Your task to perform on an android device: Open Yahoo.com Image 0: 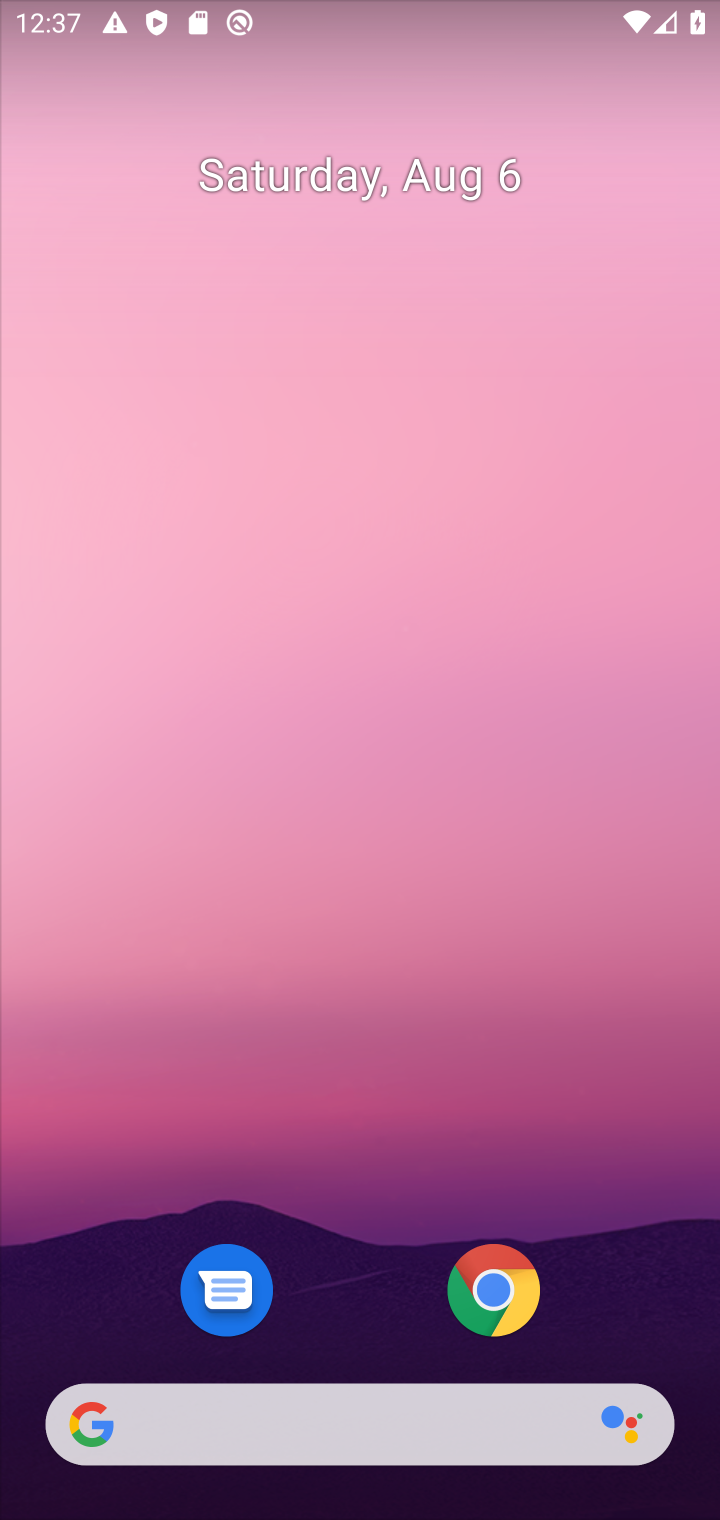
Step 0: click (506, 1281)
Your task to perform on an android device: Open Yahoo.com Image 1: 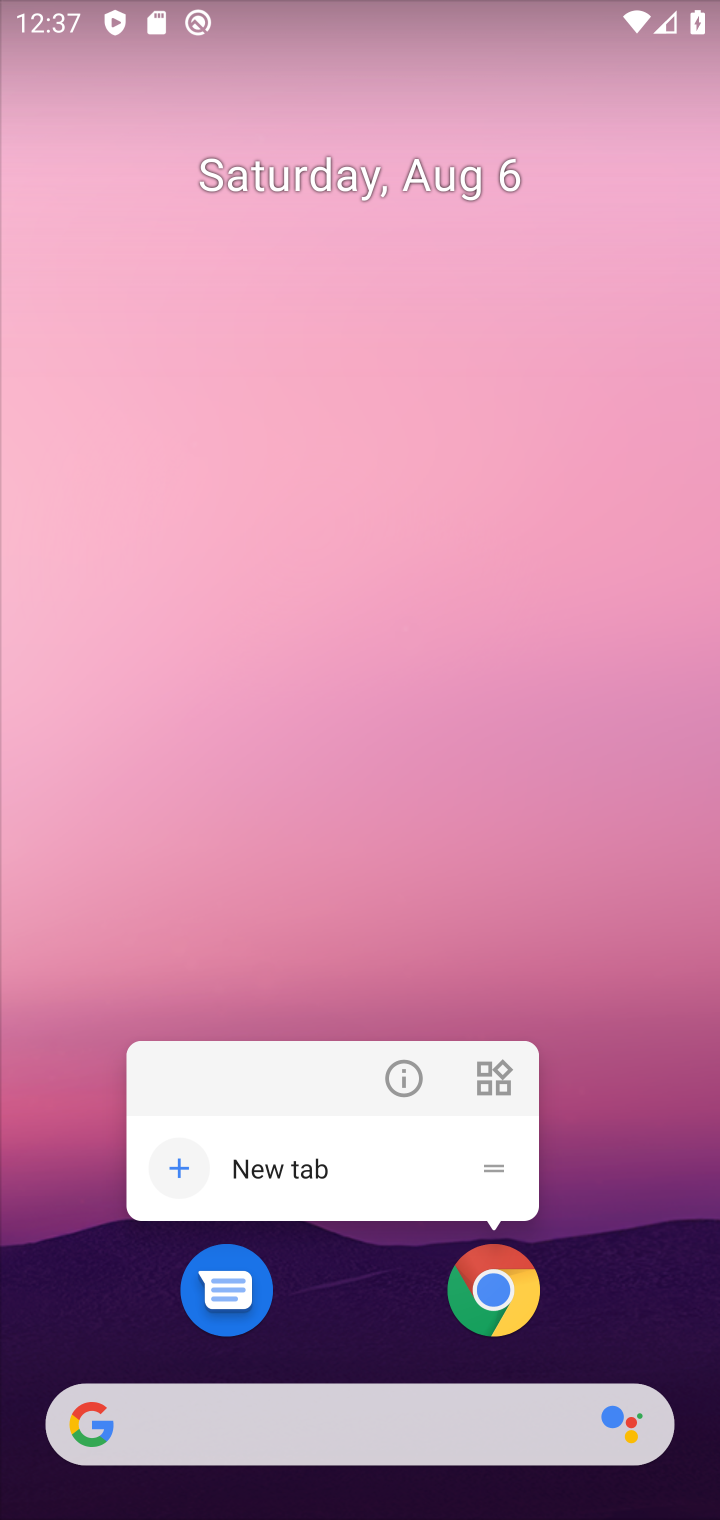
Step 1: click (510, 1287)
Your task to perform on an android device: Open Yahoo.com Image 2: 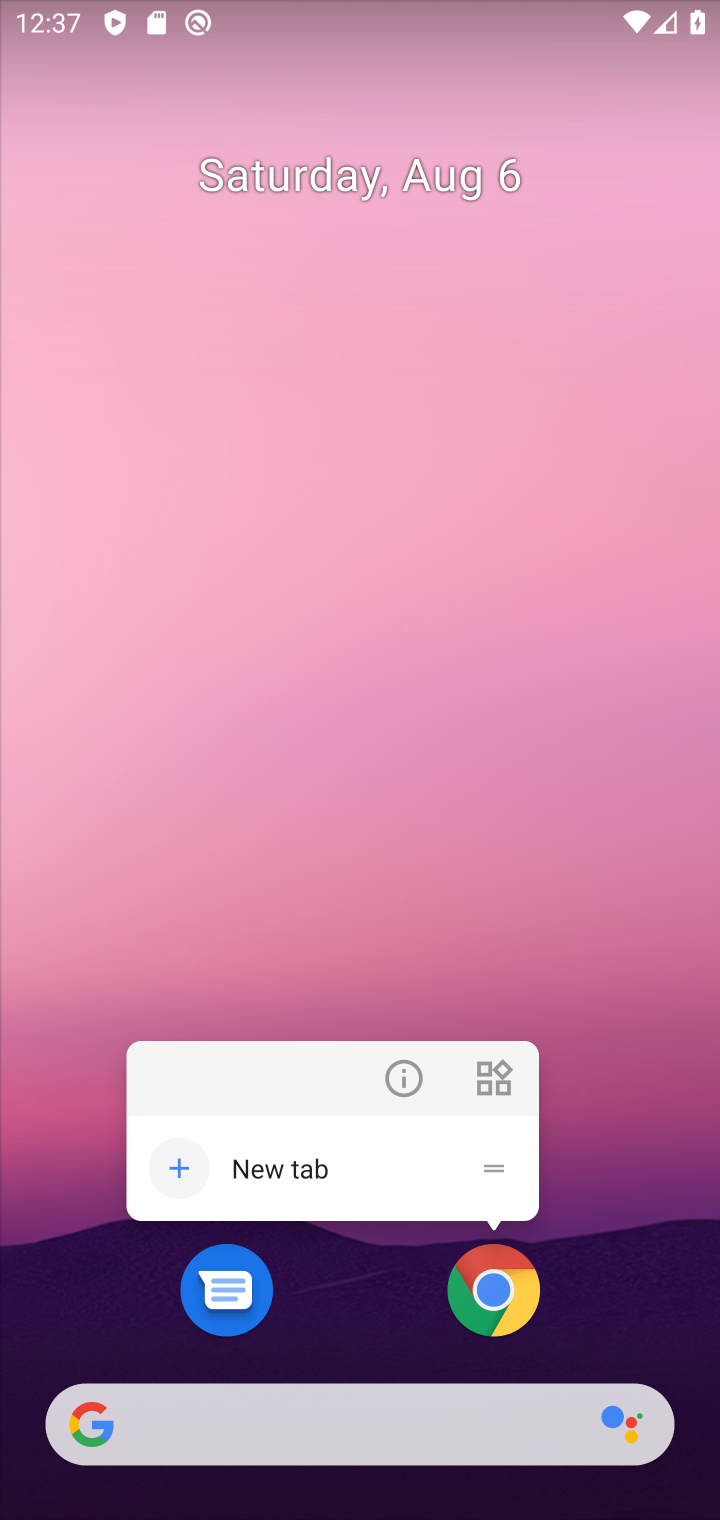
Step 2: click (502, 1262)
Your task to perform on an android device: Open Yahoo.com Image 3: 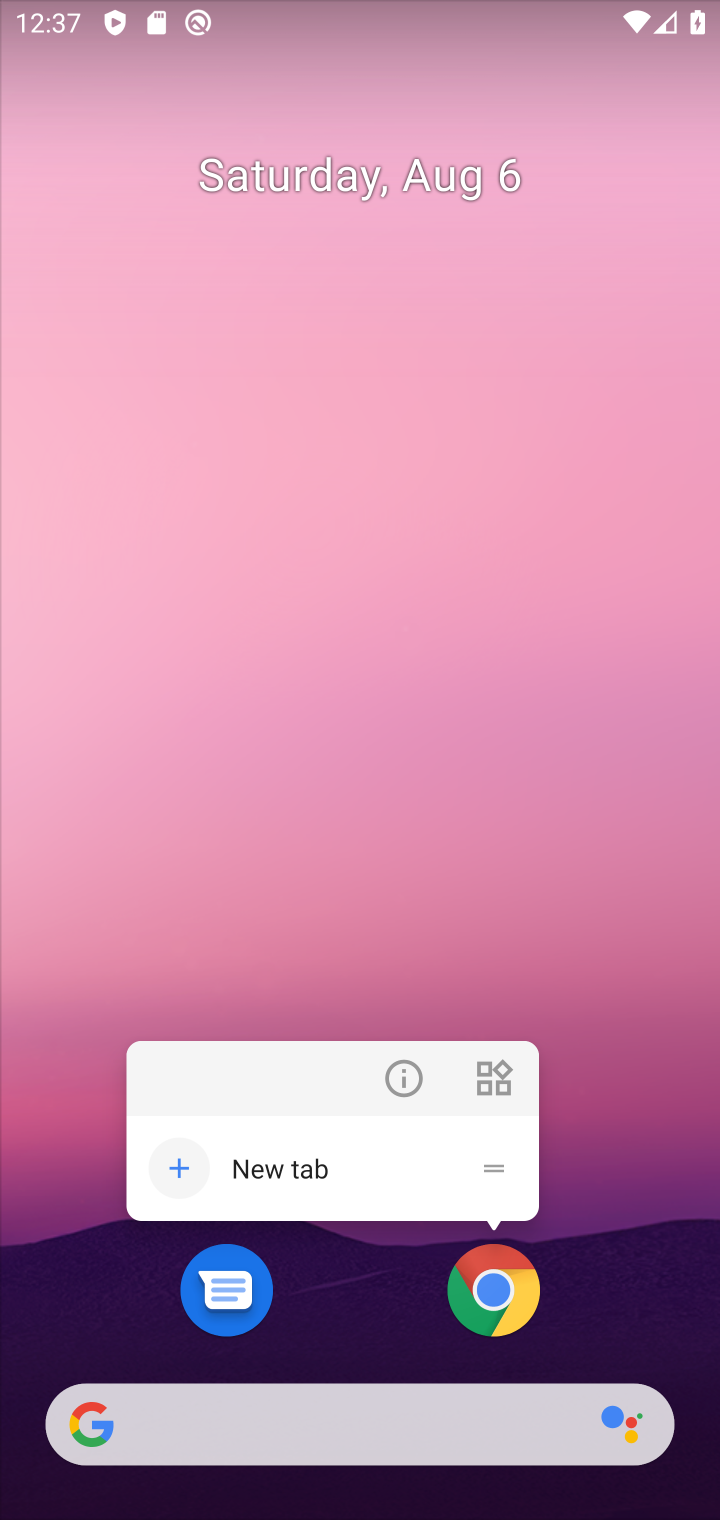
Step 3: click (519, 1281)
Your task to perform on an android device: Open Yahoo.com Image 4: 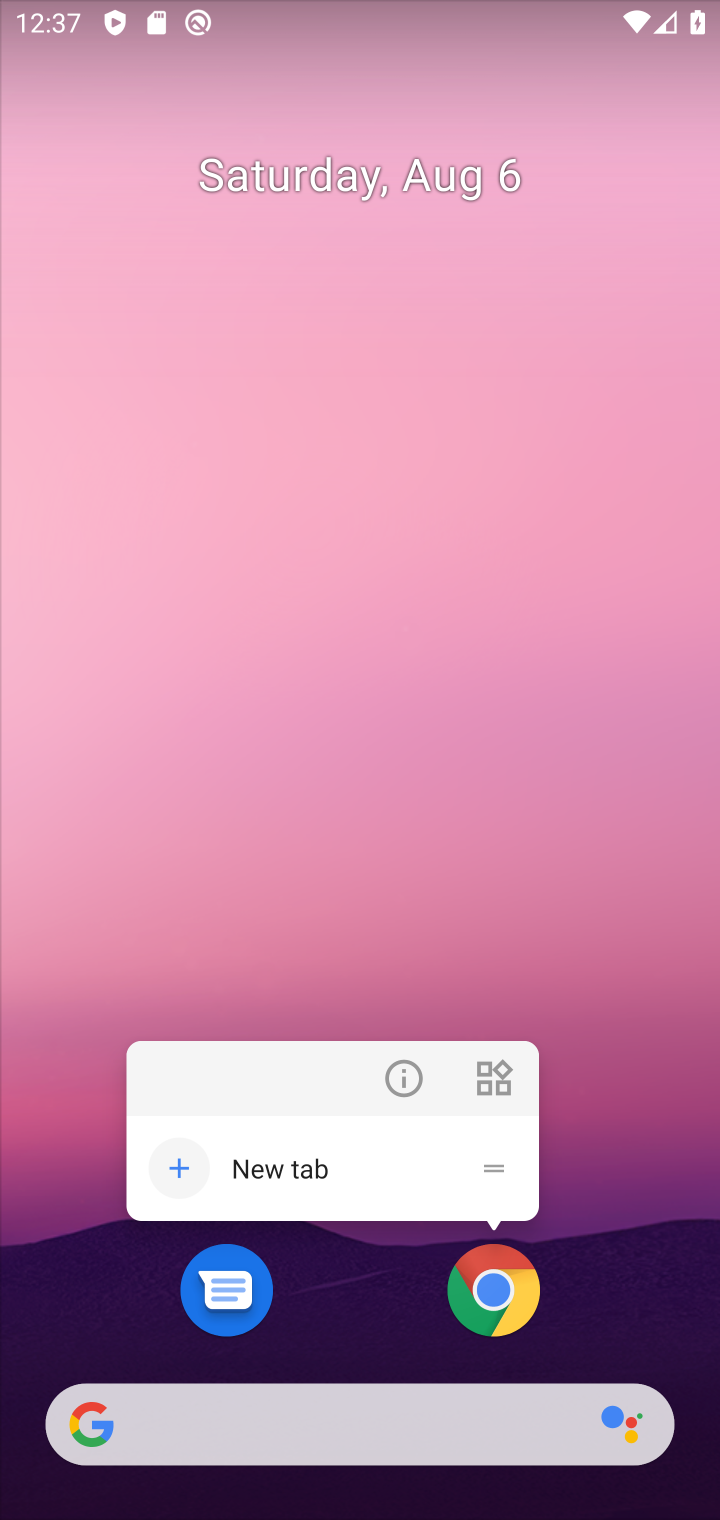
Step 4: click (512, 1306)
Your task to perform on an android device: Open Yahoo.com Image 5: 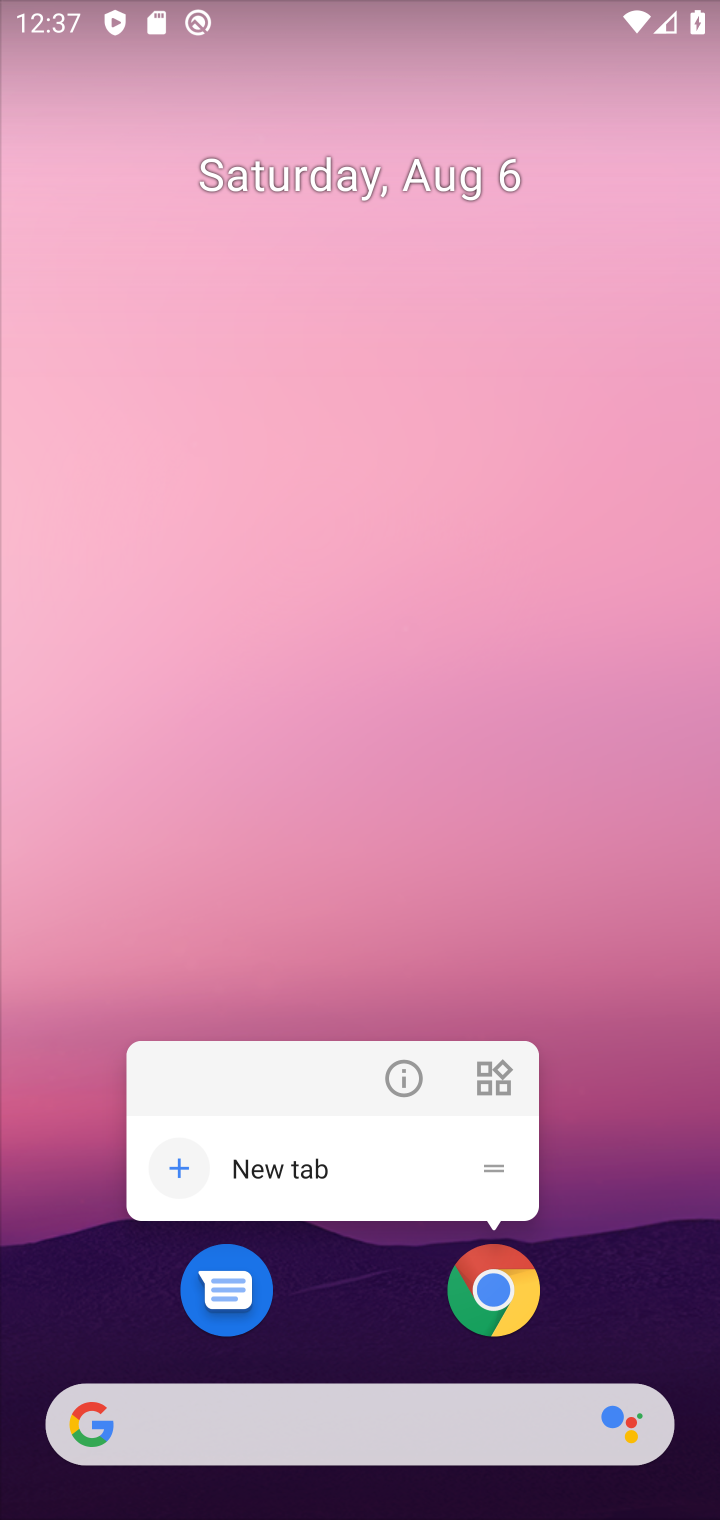
Step 5: click (467, 1314)
Your task to perform on an android device: Open Yahoo.com Image 6: 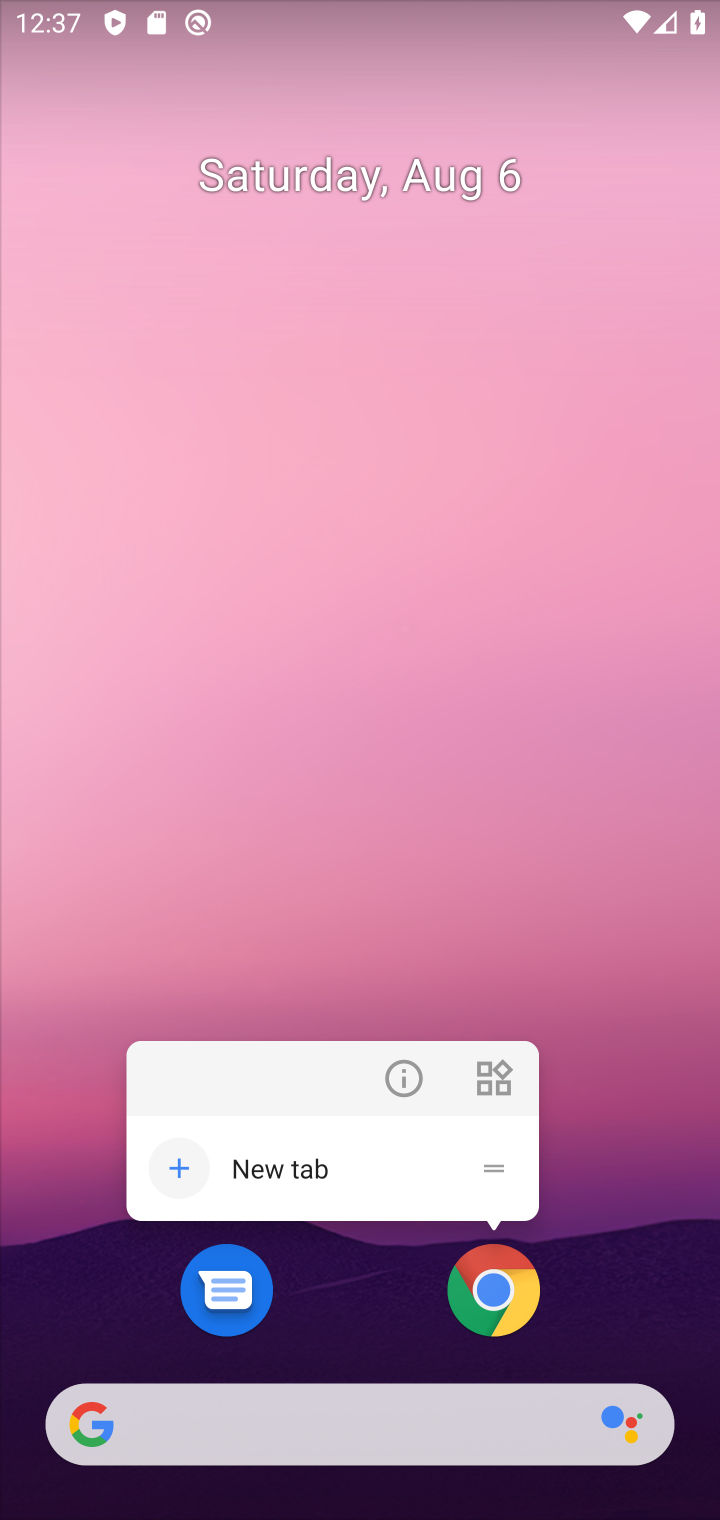
Step 6: click (484, 1309)
Your task to perform on an android device: Open Yahoo.com Image 7: 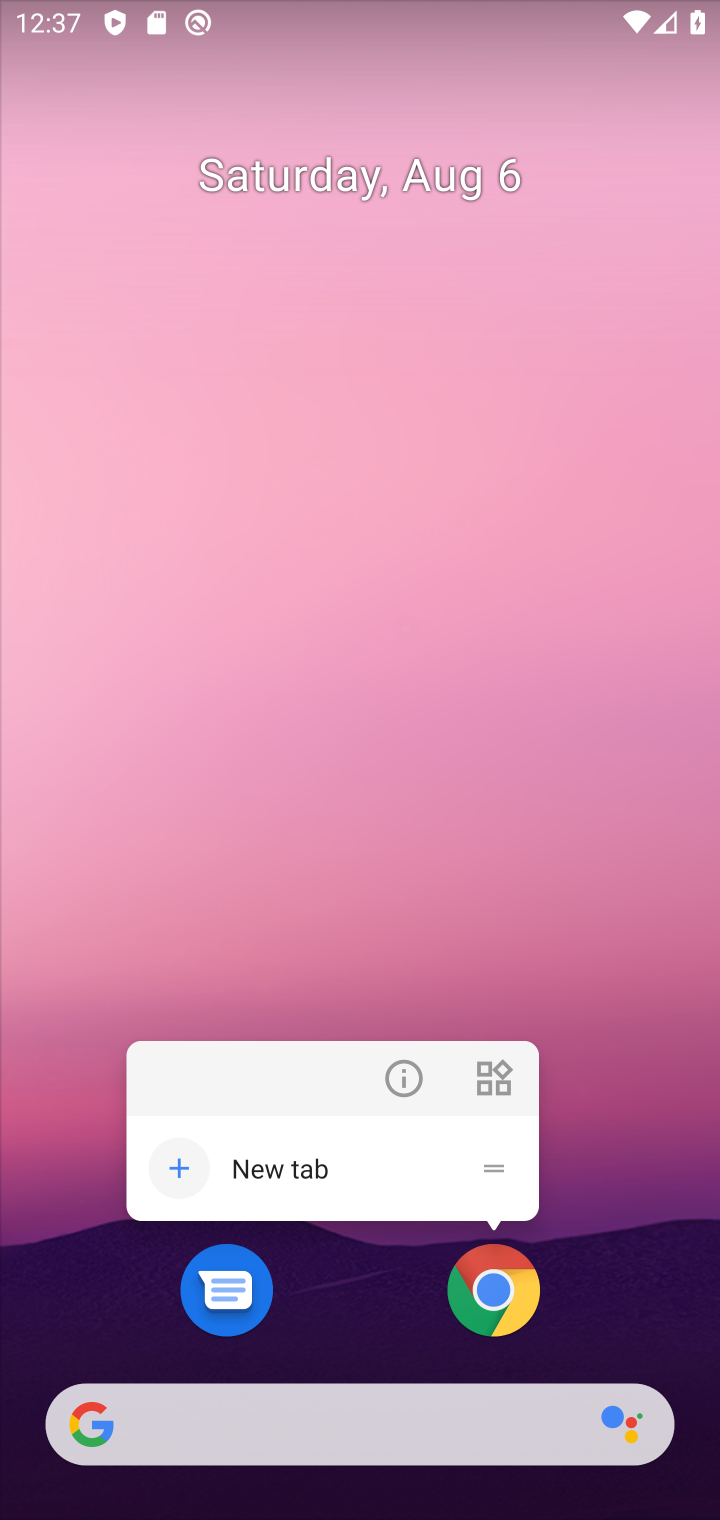
Step 7: click (484, 1309)
Your task to perform on an android device: Open Yahoo.com Image 8: 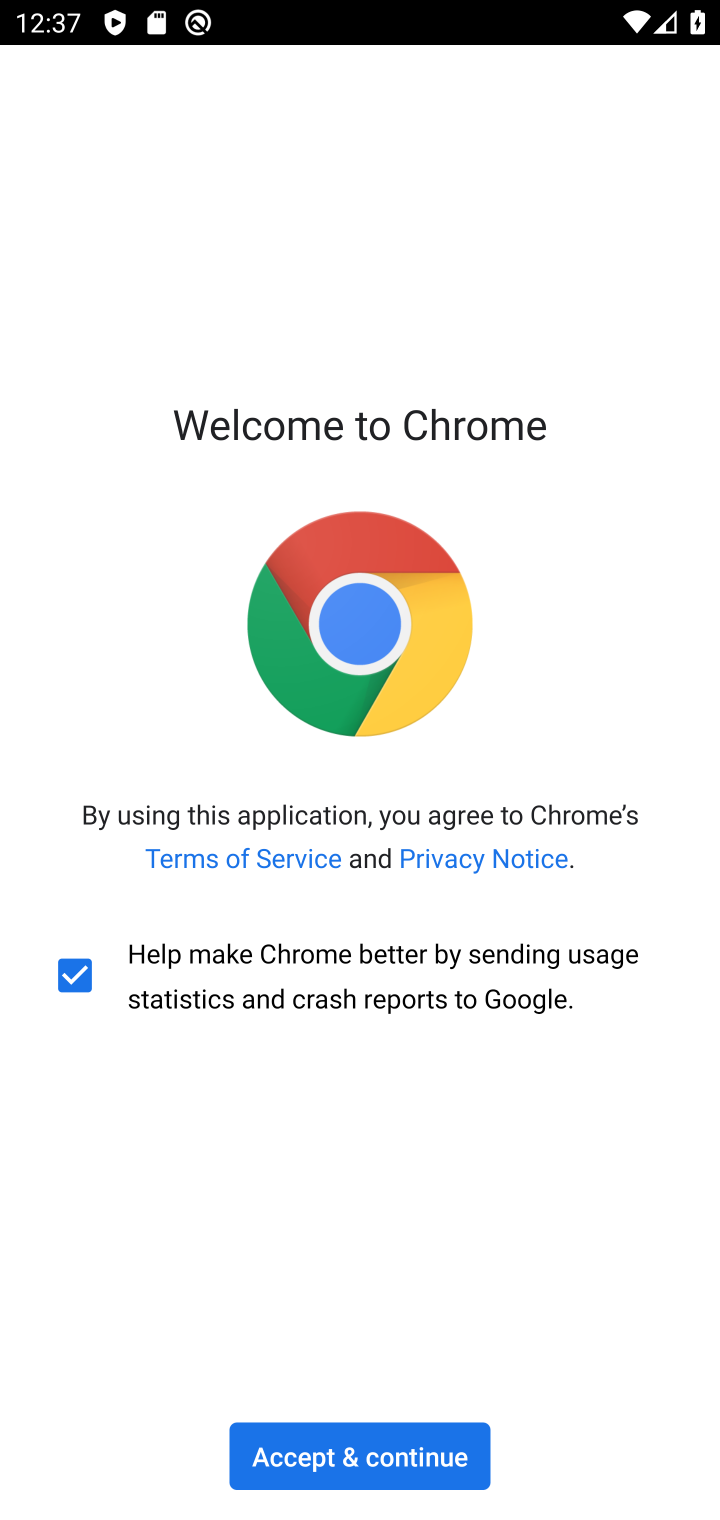
Step 8: click (350, 1441)
Your task to perform on an android device: Open Yahoo.com Image 9: 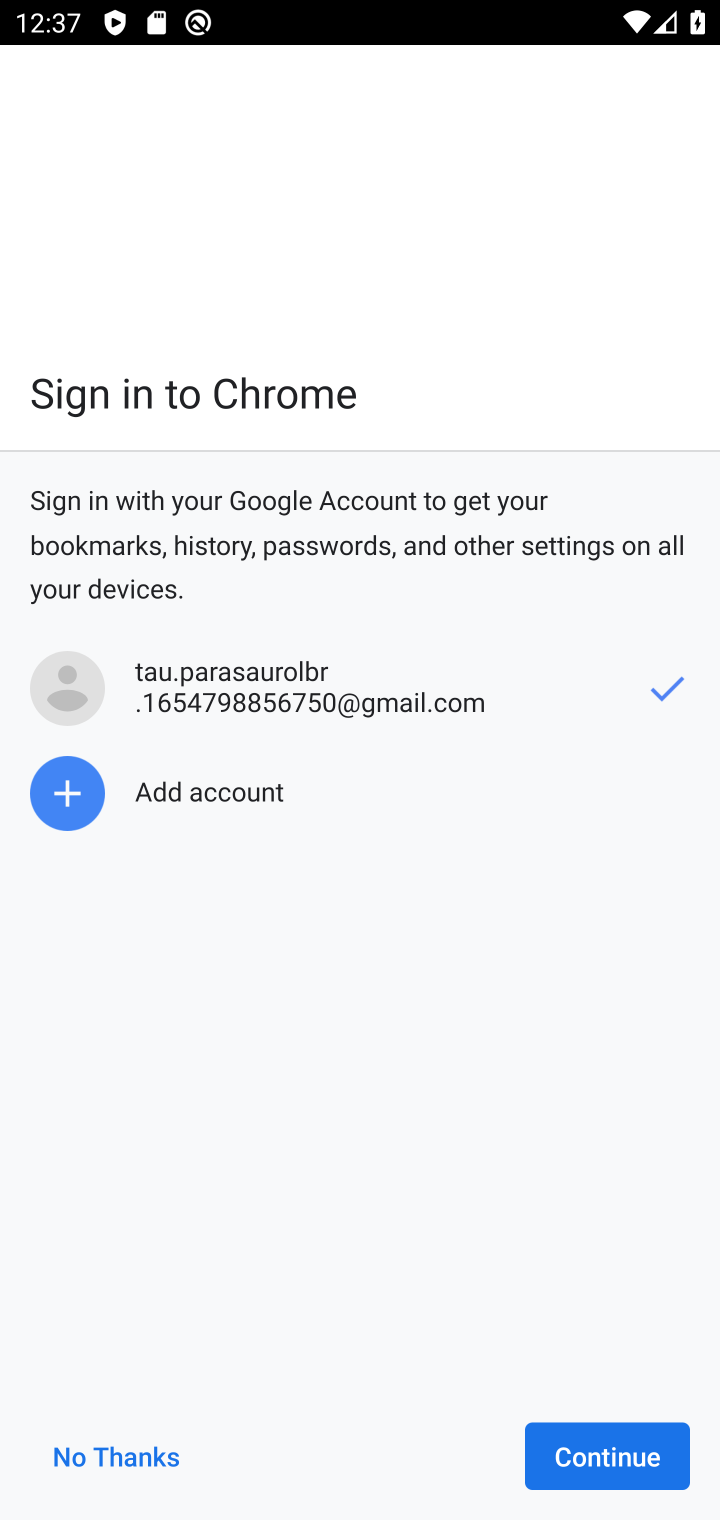
Step 9: click (586, 1441)
Your task to perform on an android device: Open Yahoo.com Image 10: 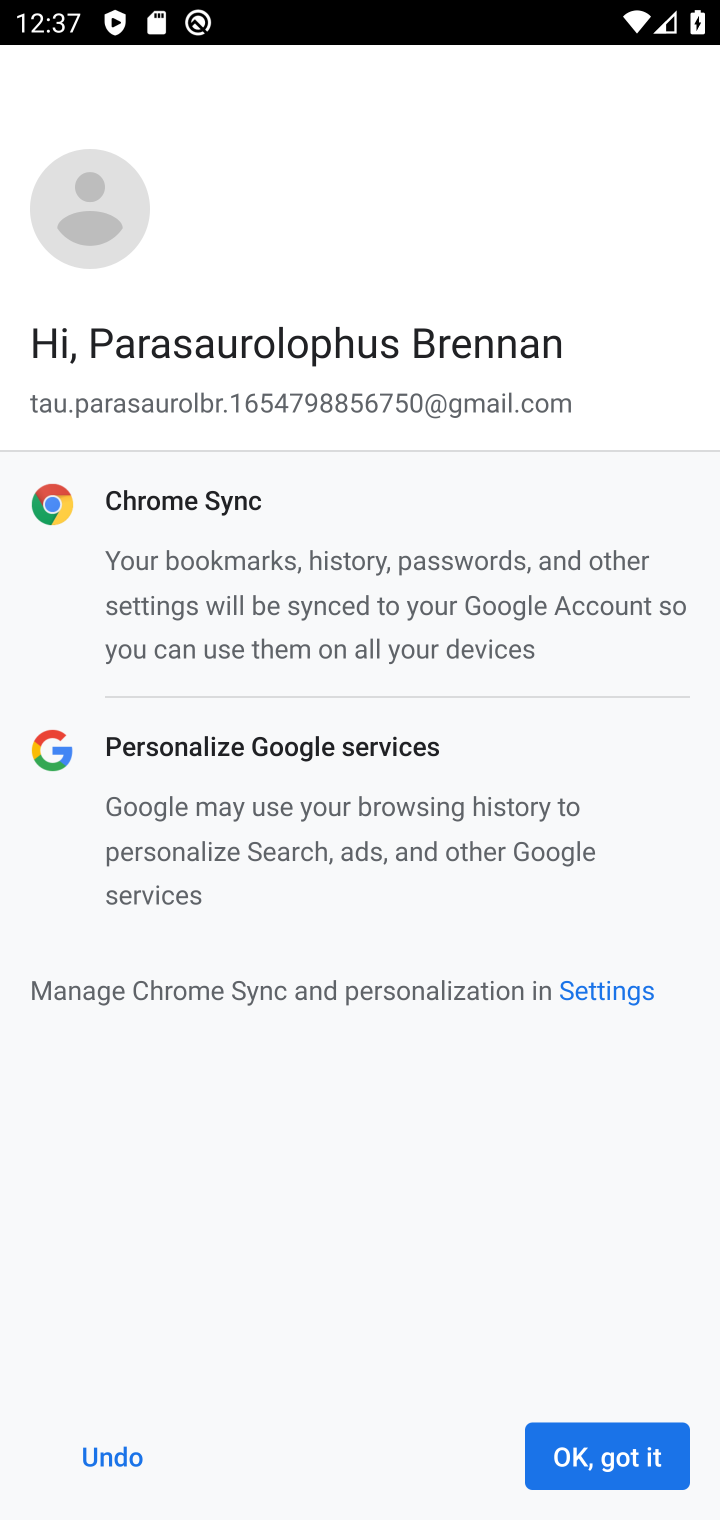
Step 10: click (588, 1446)
Your task to perform on an android device: Open Yahoo.com Image 11: 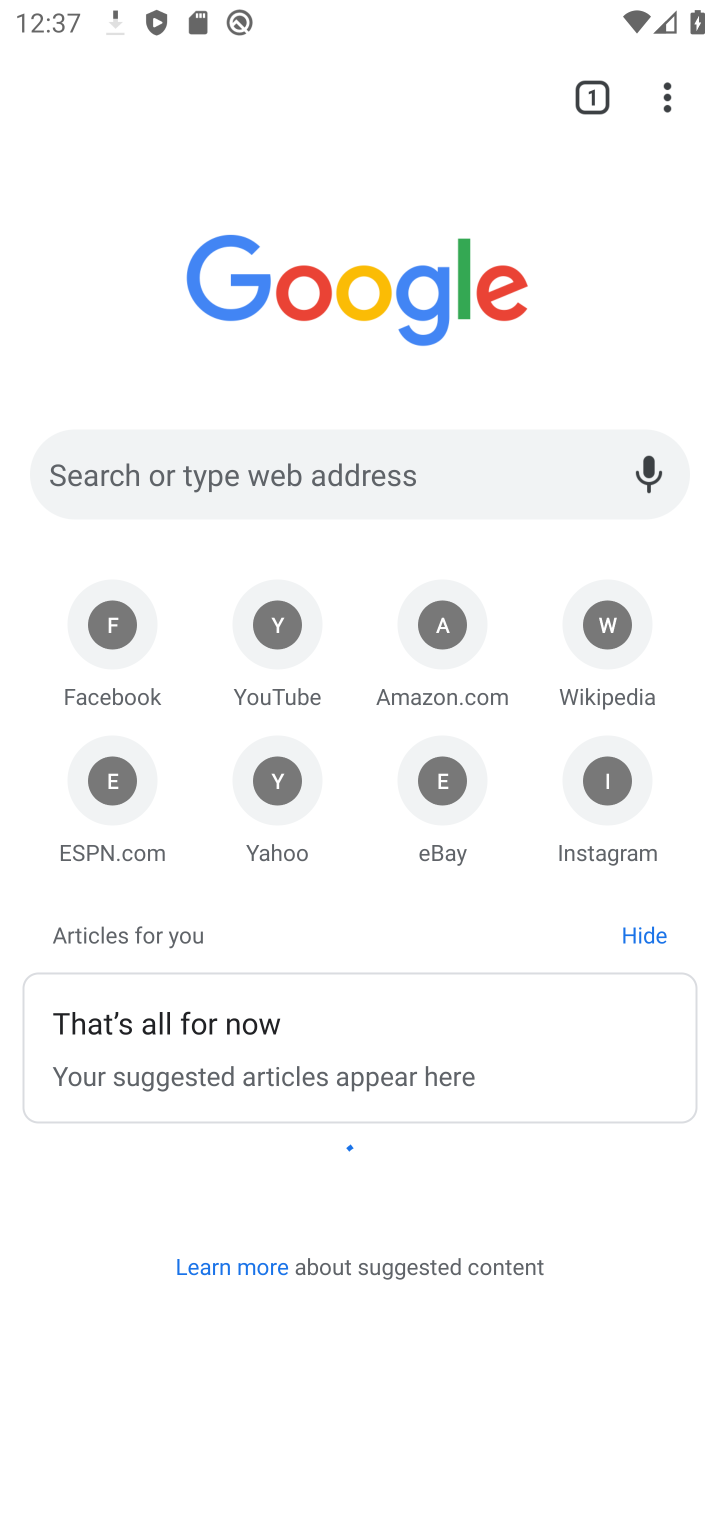
Step 11: click (287, 811)
Your task to perform on an android device: Open Yahoo.com Image 12: 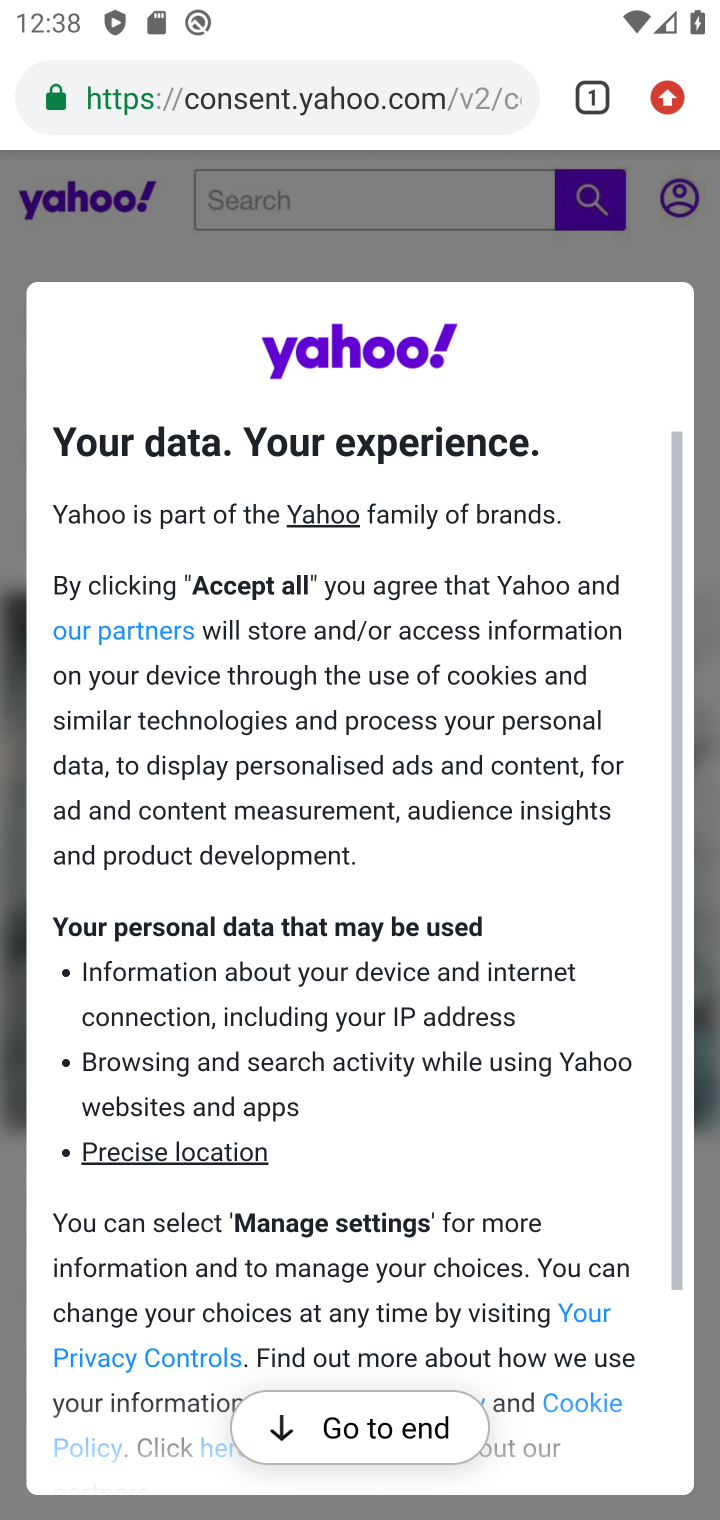
Step 12: task complete